Your task to perform on an android device: toggle notifications settings in the gmail app Image 0: 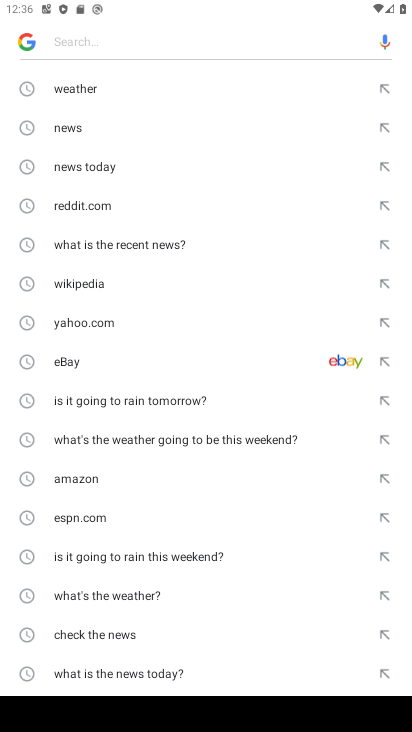
Step 0: task complete